Your task to perform on an android device: read, delete, or share a saved page in the chrome app Image 0: 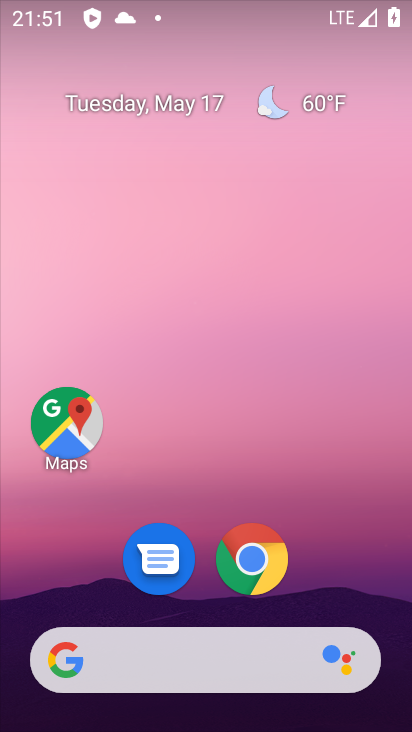
Step 0: click (235, 551)
Your task to perform on an android device: read, delete, or share a saved page in the chrome app Image 1: 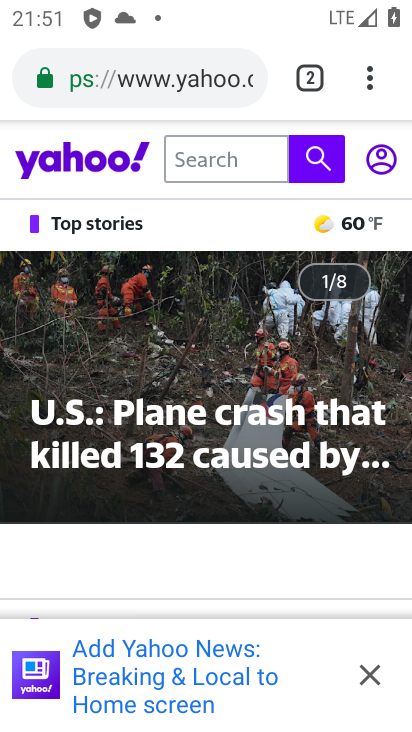
Step 1: task complete